Your task to perform on an android device: stop showing notifications on the lock screen Image 0: 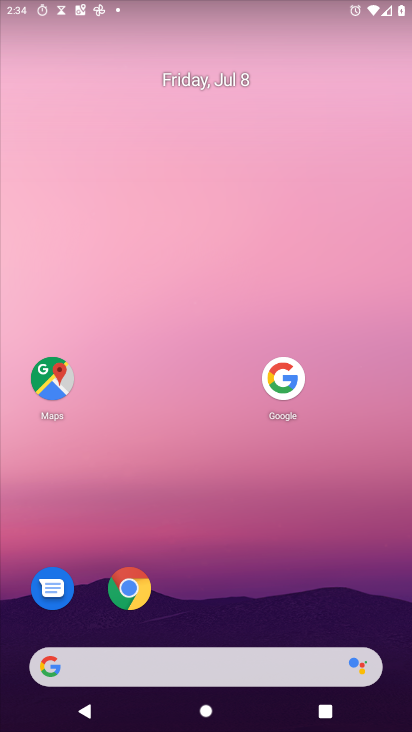
Step 0: drag from (127, 642) to (199, 258)
Your task to perform on an android device: stop showing notifications on the lock screen Image 1: 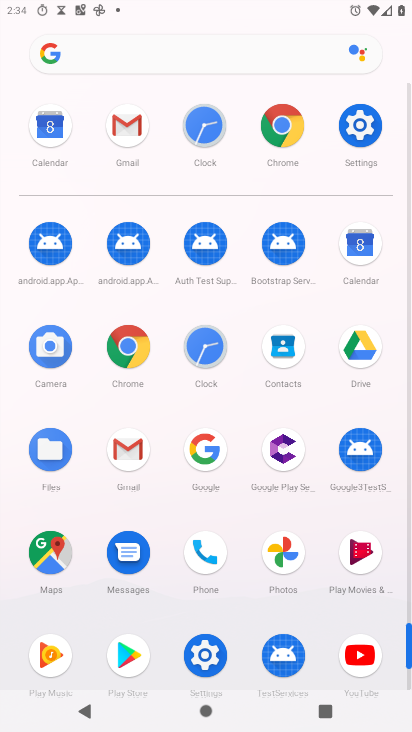
Step 1: click (353, 126)
Your task to perform on an android device: stop showing notifications on the lock screen Image 2: 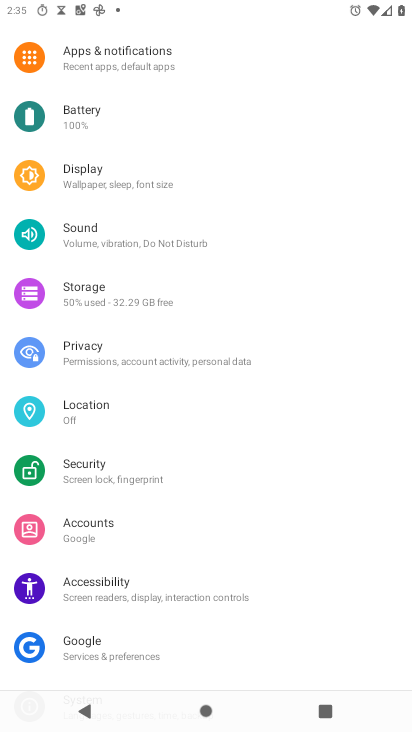
Step 2: click (150, 57)
Your task to perform on an android device: stop showing notifications on the lock screen Image 3: 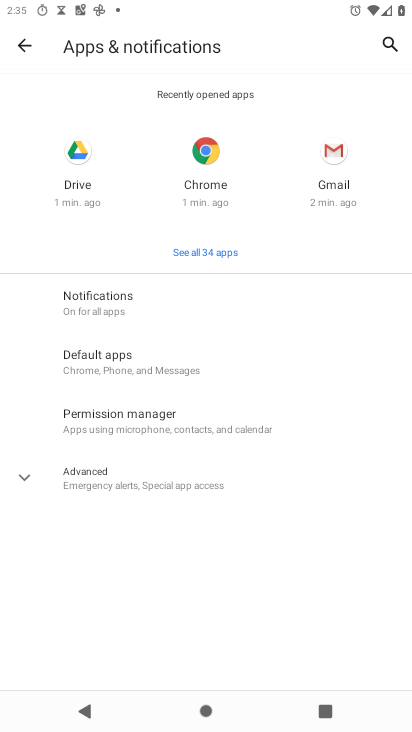
Step 3: click (108, 300)
Your task to perform on an android device: stop showing notifications on the lock screen Image 4: 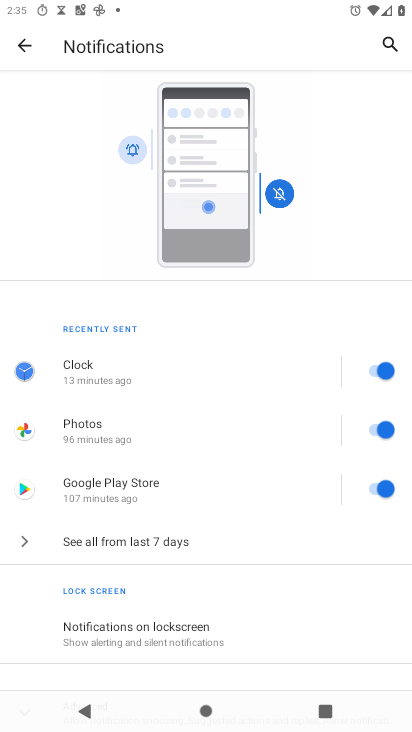
Step 4: drag from (208, 588) to (233, 390)
Your task to perform on an android device: stop showing notifications on the lock screen Image 5: 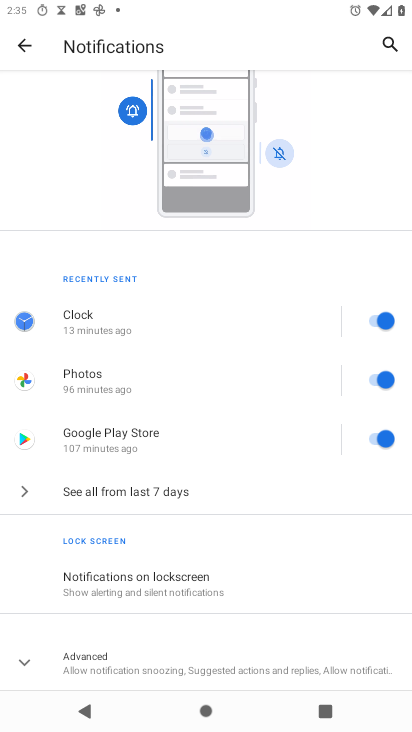
Step 5: click (187, 578)
Your task to perform on an android device: stop showing notifications on the lock screen Image 6: 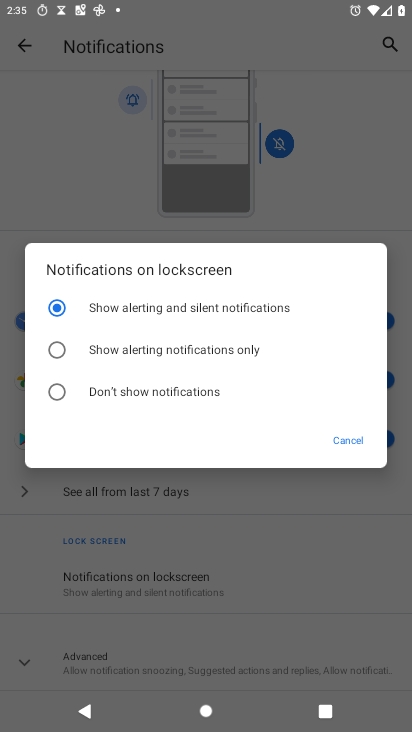
Step 6: click (54, 386)
Your task to perform on an android device: stop showing notifications on the lock screen Image 7: 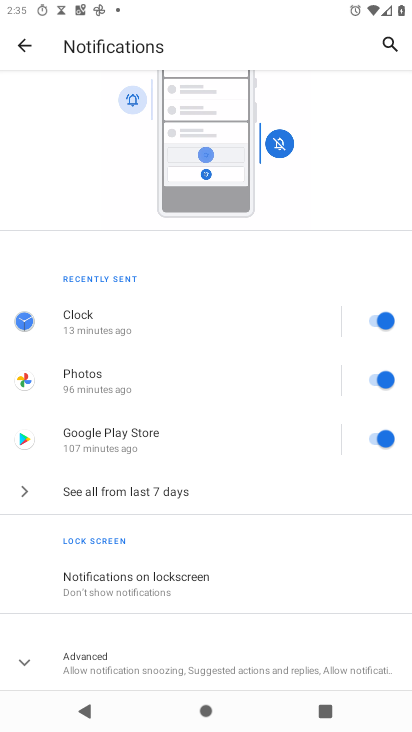
Step 7: task complete